Your task to perform on an android device: allow notifications from all sites in the chrome app Image 0: 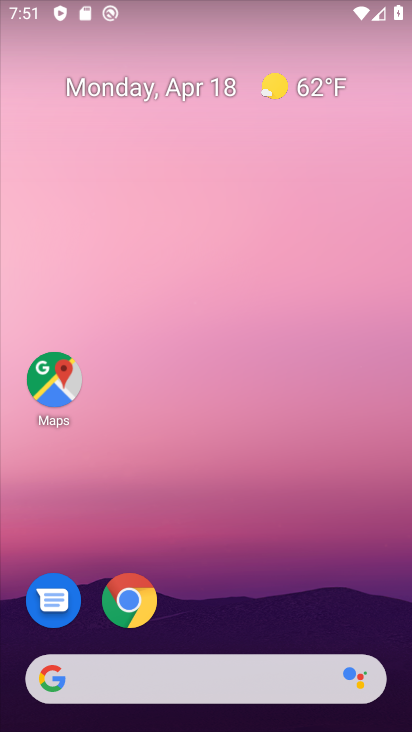
Step 0: drag from (204, 644) to (296, 10)
Your task to perform on an android device: allow notifications from all sites in the chrome app Image 1: 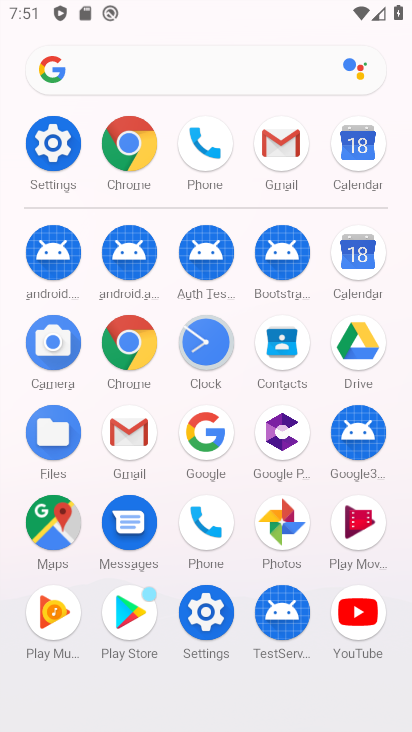
Step 1: click (119, 143)
Your task to perform on an android device: allow notifications from all sites in the chrome app Image 2: 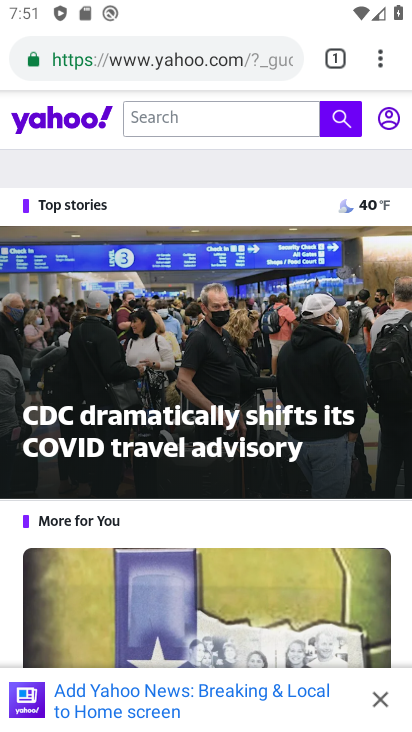
Step 2: click (373, 66)
Your task to perform on an android device: allow notifications from all sites in the chrome app Image 3: 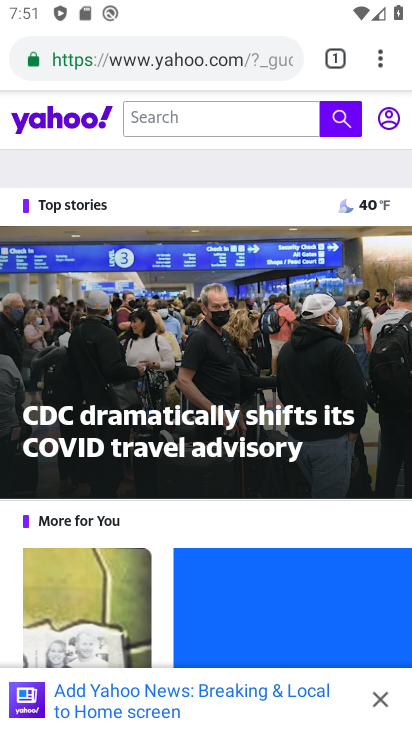
Step 3: click (376, 65)
Your task to perform on an android device: allow notifications from all sites in the chrome app Image 4: 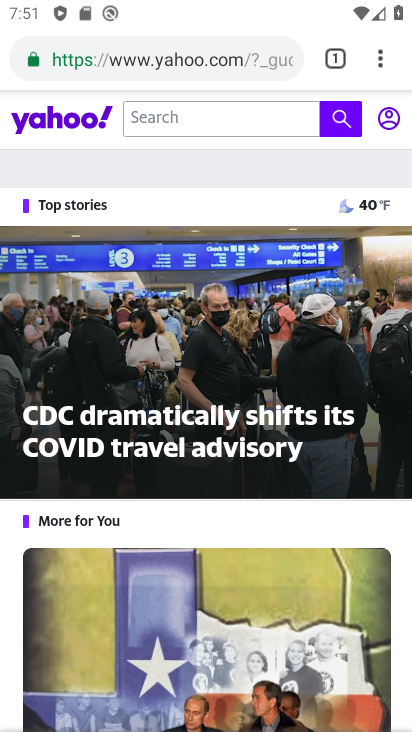
Step 4: click (376, 65)
Your task to perform on an android device: allow notifications from all sites in the chrome app Image 5: 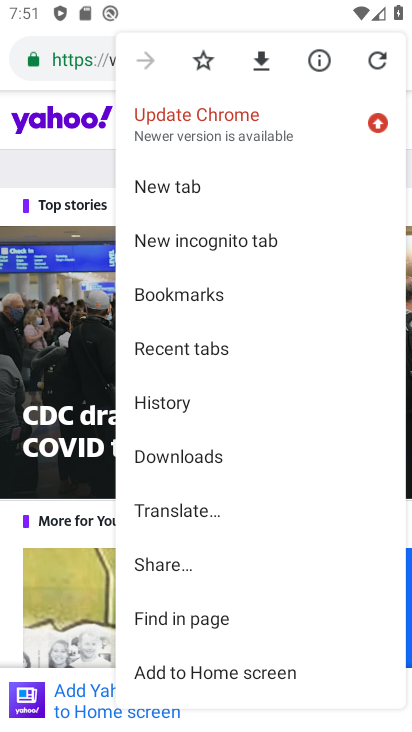
Step 5: drag from (283, 557) to (237, 230)
Your task to perform on an android device: allow notifications from all sites in the chrome app Image 6: 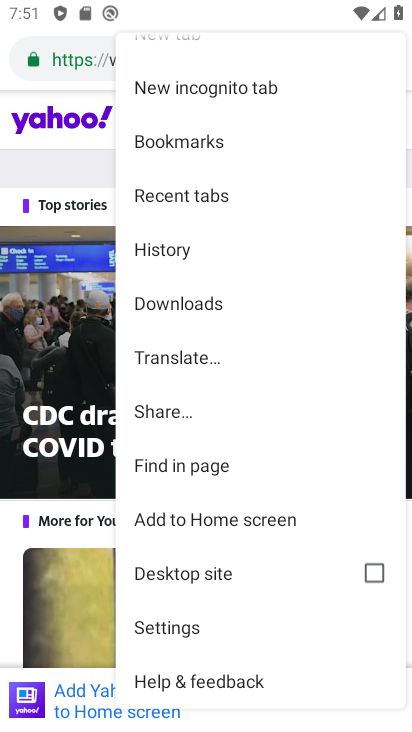
Step 6: click (185, 624)
Your task to perform on an android device: allow notifications from all sites in the chrome app Image 7: 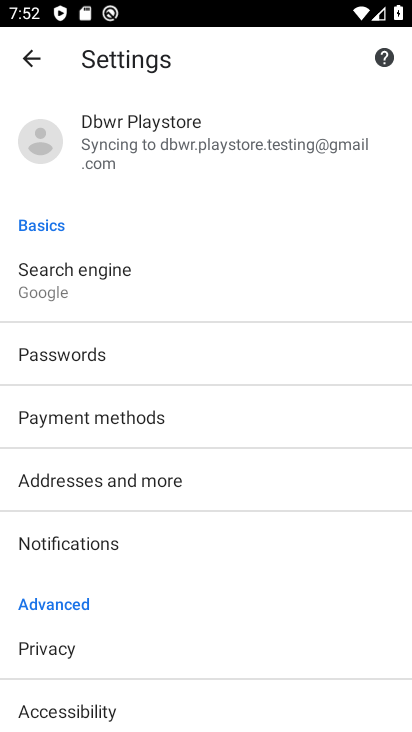
Step 7: drag from (146, 631) to (128, 307)
Your task to perform on an android device: allow notifications from all sites in the chrome app Image 8: 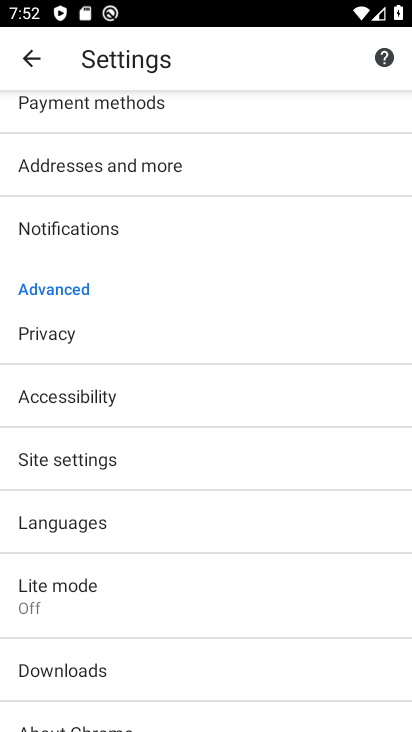
Step 8: click (107, 465)
Your task to perform on an android device: allow notifications from all sites in the chrome app Image 9: 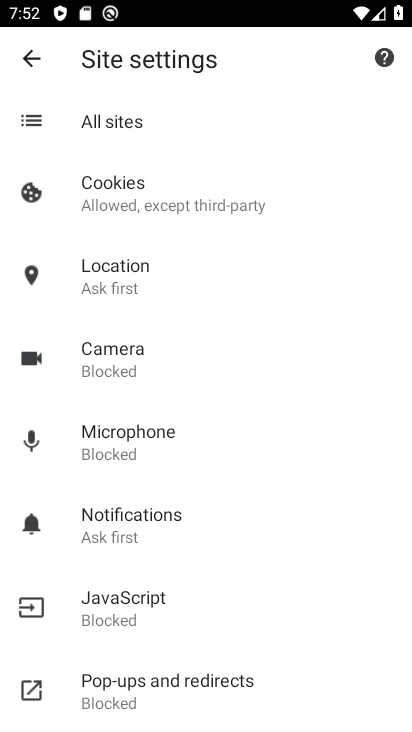
Step 9: click (151, 531)
Your task to perform on an android device: allow notifications from all sites in the chrome app Image 10: 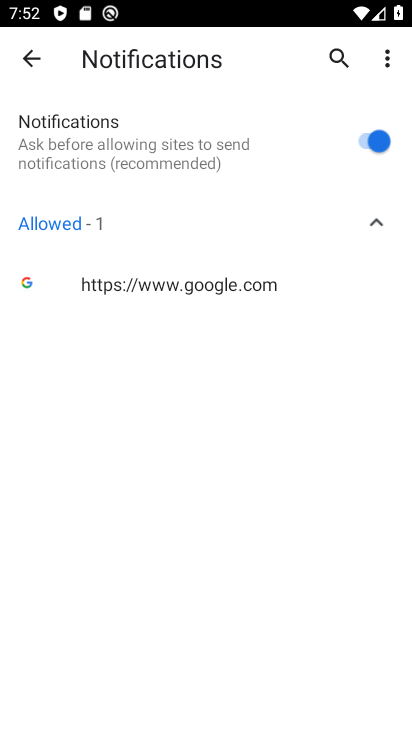
Step 10: task complete